Your task to perform on an android device: Open settings Image 0: 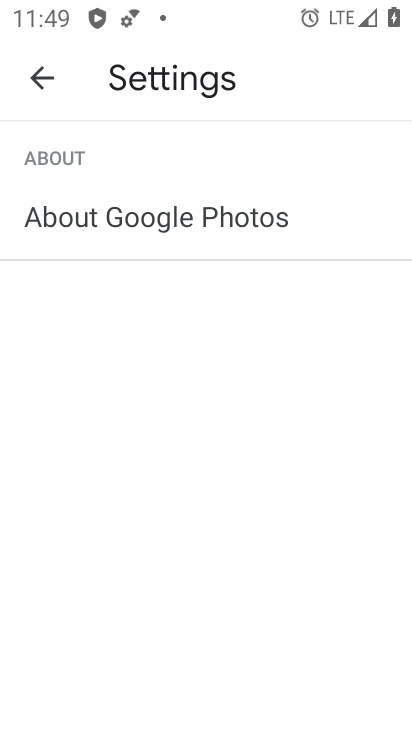
Step 0: click (45, 73)
Your task to perform on an android device: Open settings Image 1: 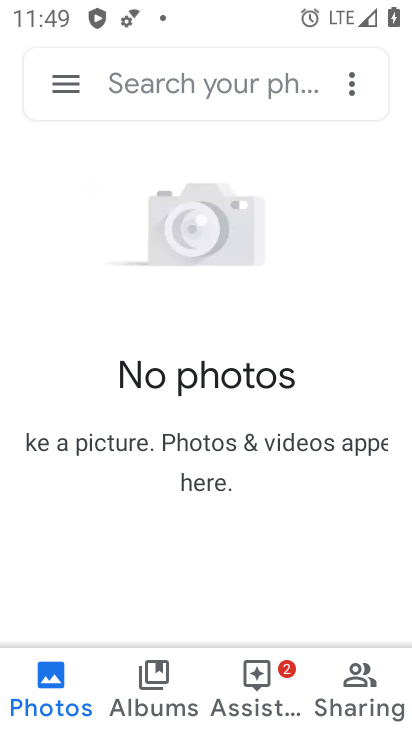
Step 1: press back button
Your task to perform on an android device: Open settings Image 2: 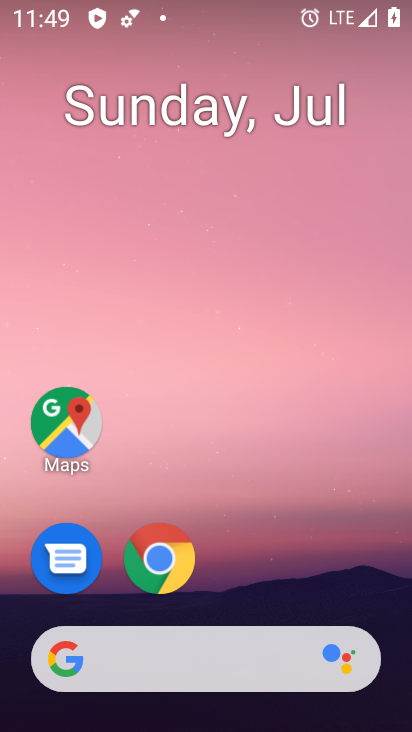
Step 2: drag from (290, 611) to (247, 3)
Your task to perform on an android device: Open settings Image 3: 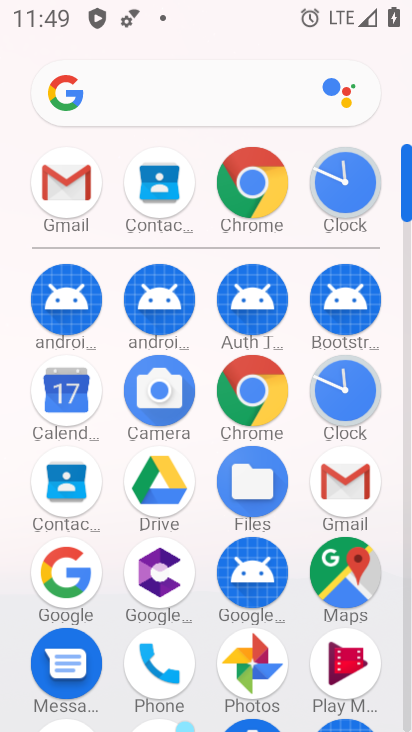
Step 3: drag from (164, 588) to (241, 109)
Your task to perform on an android device: Open settings Image 4: 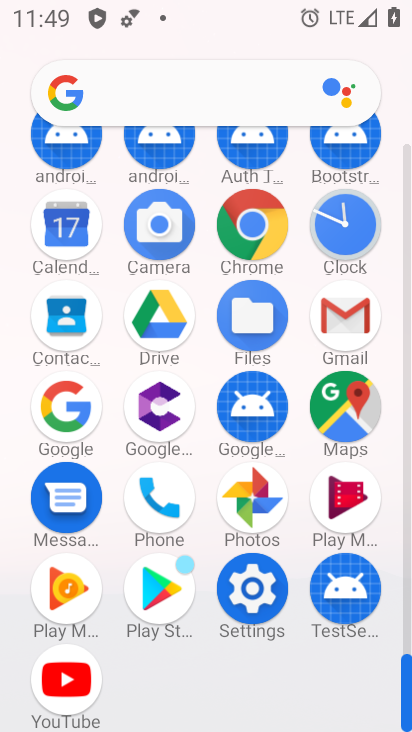
Step 4: click (256, 592)
Your task to perform on an android device: Open settings Image 5: 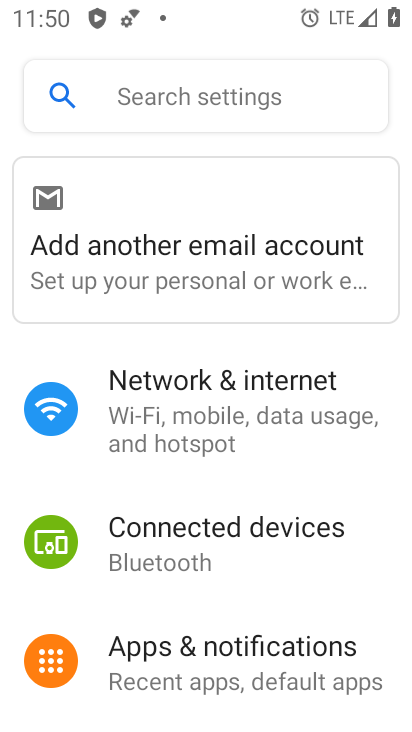
Step 5: task complete